Your task to perform on an android device: turn off picture-in-picture Image 0: 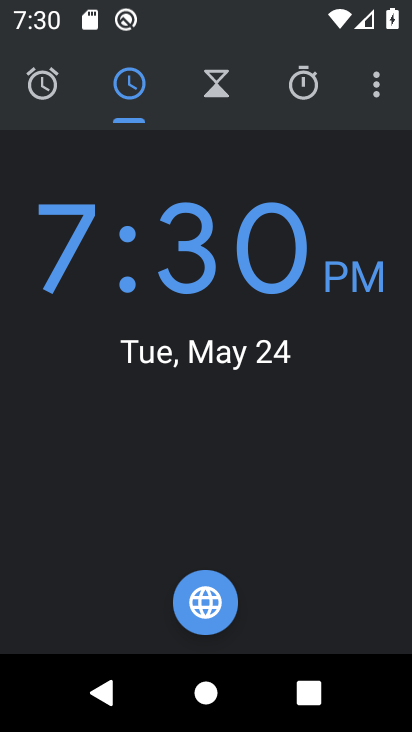
Step 0: press home button
Your task to perform on an android device: turn off picture-in-picture Image 1: 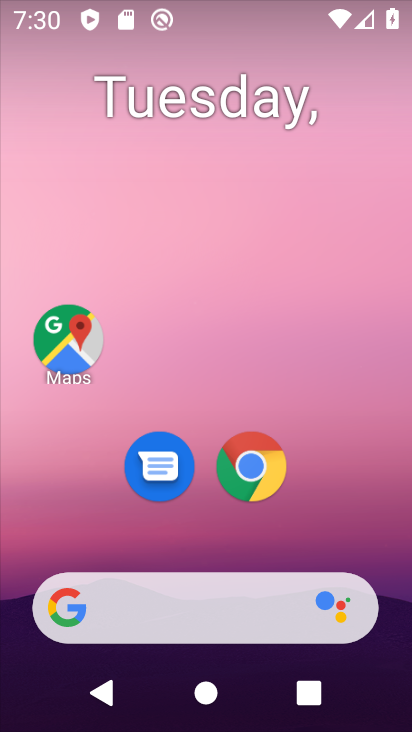
Step 1: click (351, 374)
Your task to perform on an android device: turn off picture-in-picture Image 2: 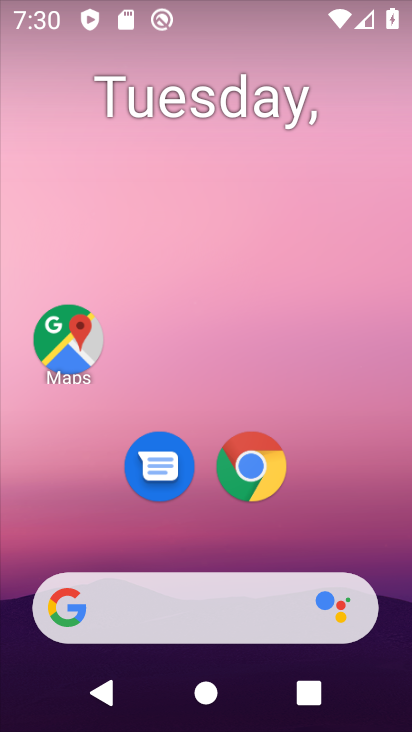
Step 2: drag from (348, 502) to (265, 82)
Your task to perform on an android device: turn off picture-in-picture Image 3: 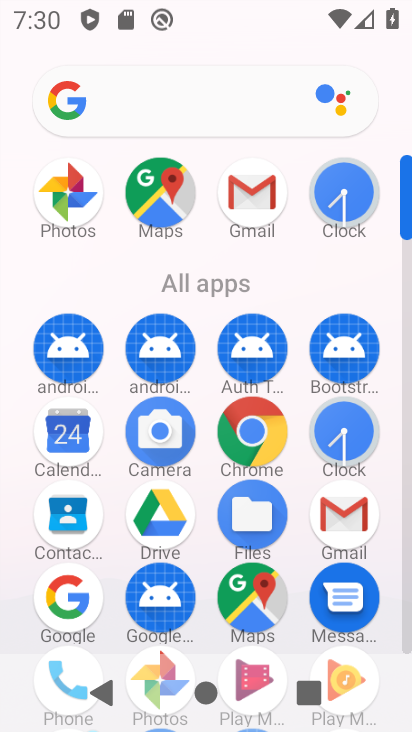
Step 3: click (405, 594)
Your task to perform on an android device: turn off picture-in-picture Image 4: 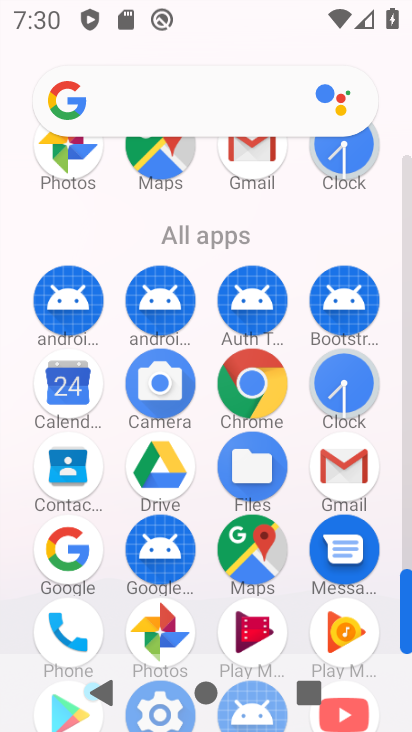
Step 4: click (409, 663)
Your task to perform on an android device: turn off picture-in-picture Image 5: 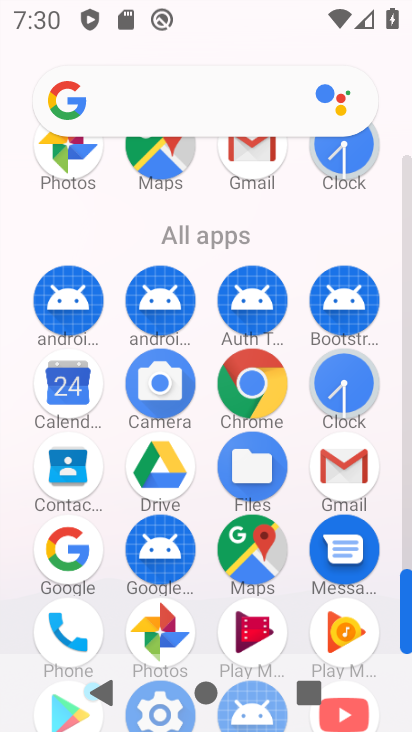
Step 5: click (409, 720)
Your task to perform on an android device: turn off picture-in-picture Image 6: 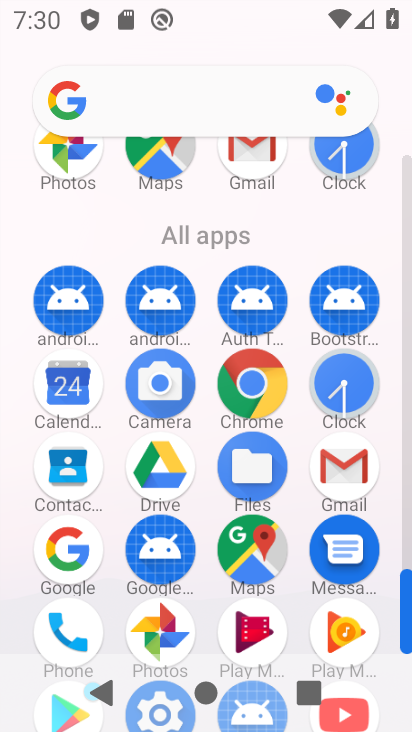
Step 6: click (406, 625)
Your task to perform on an android device: turn off picture-in-picture Image 7: 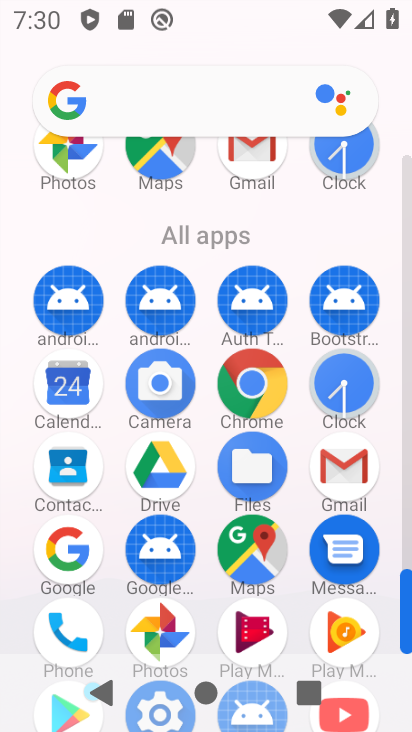
Step 7: drag from (410, 614) to (407, 723)
Your task to perform on an android device: turn off picture-in-picture Image 8: 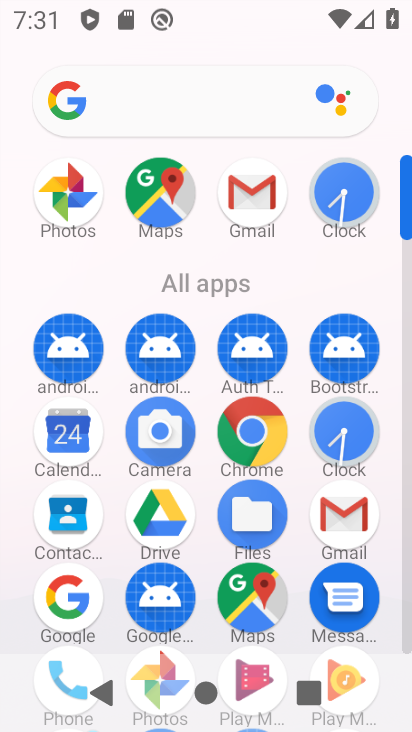
Step 8: click (407, 711)
Your task to perform on an android device: turn off picture-in-picture Image 9: 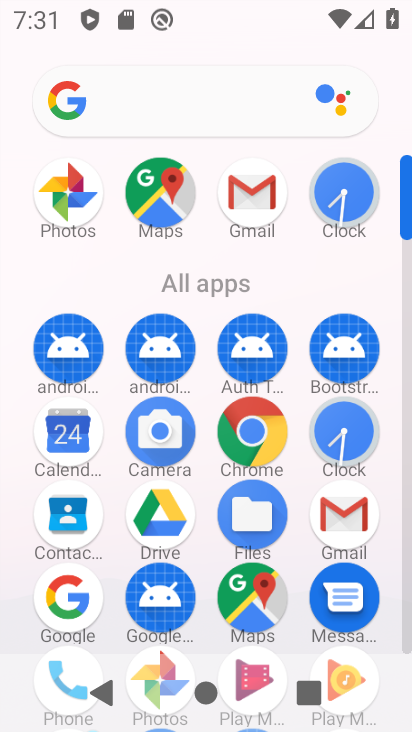
Step 9: click (407, 639)
Your task to perform on an android device: turn off picture-in-picture Image 10: 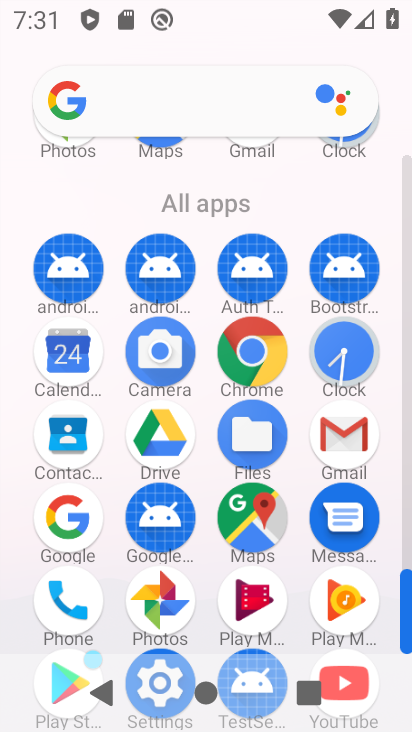
Step 10: click (161, 652)
Your task to perform on an android device: turn off picture-in-picture Image 11: 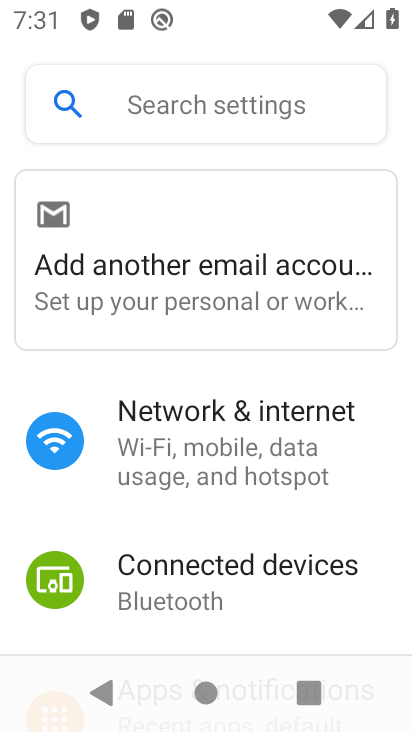
Step 11: drag from (304, 531) to (305, 244)
Your task to perform on an android device: turn off picture-in-picture Image 12: 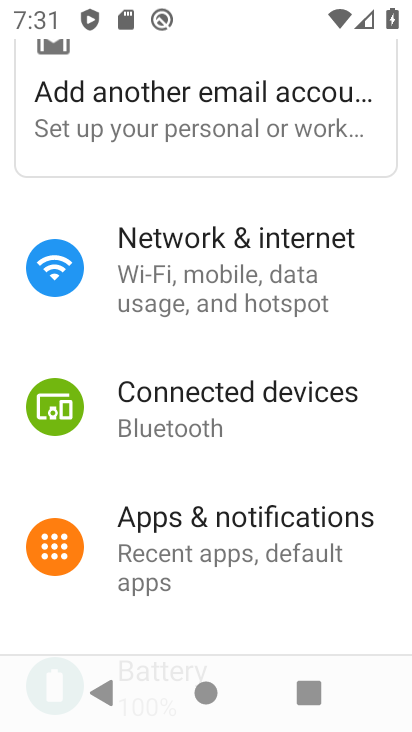
Step 12: drag from (219, 594) to (242, 401)
Your task to perform on an android device: turn off picture-in-picture Image 13: 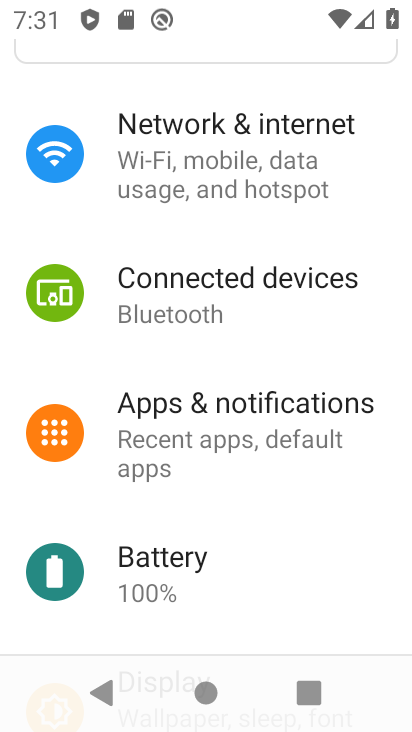
Step 13: drag from (206, 561) to (164, 278)
Your task to perform on an android device: turn off picture-in-picture Image 14: 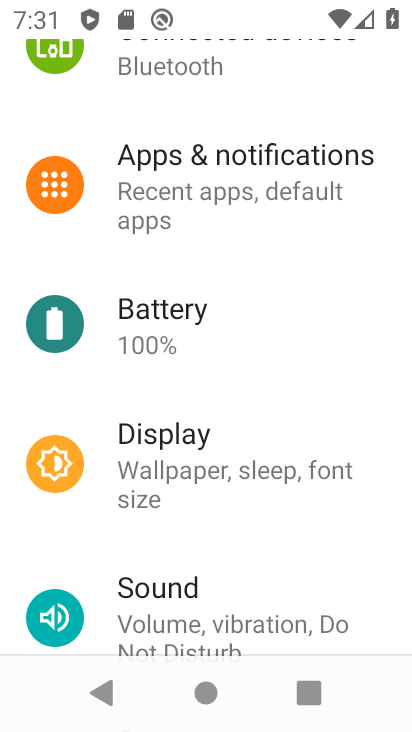
Step 14: drag from (200, 587) to (229, 291)
Your task to perform on an android device: turn off picture-in-picture Image 15: 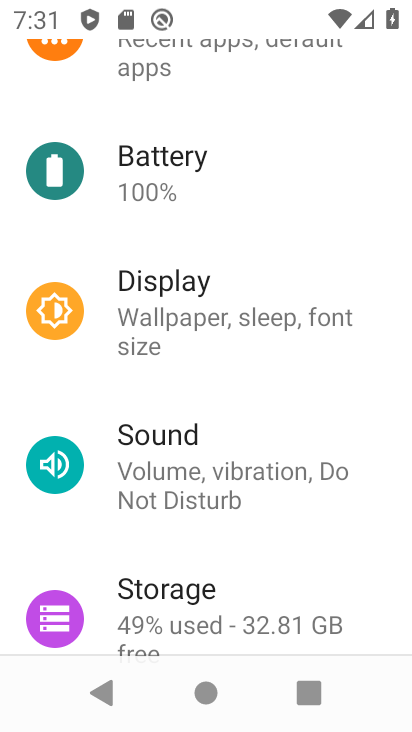
Step 15: click (158, 76)
Your task to perform on an android device: turn off picture-in-picture Image 16: 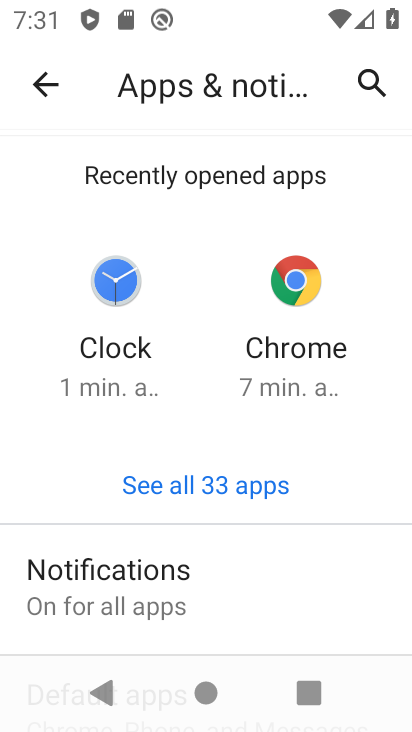
Step 16: drag from (276, 576) to (266, 368)
Your task to perform on an android device: turn off picture-in-picture Image 17: 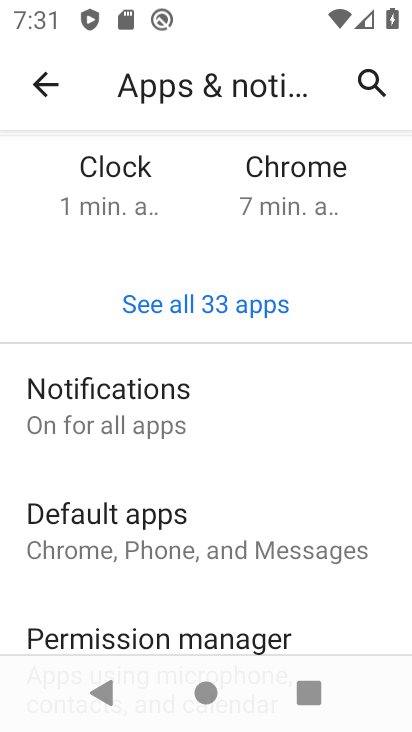
Step 17: drag from (309, 624) to (314, 420)
Your task to perform on an android device: turn off picture-in-picture Image 18: 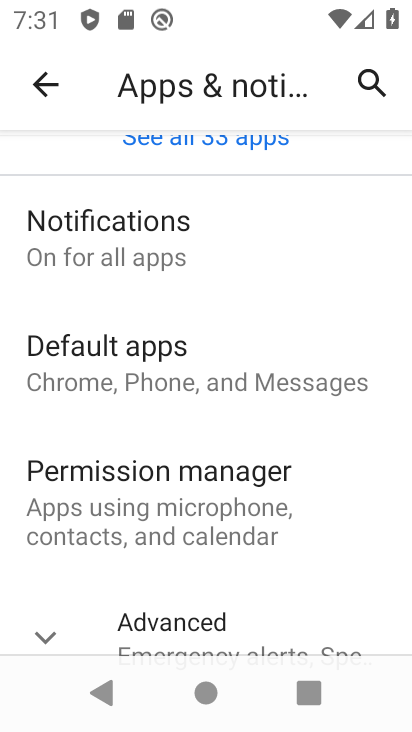
Step 18: drag from (244, 622) to (246, 400)
Your task to perform on an android device: turn off picture-in-picture Image 19: 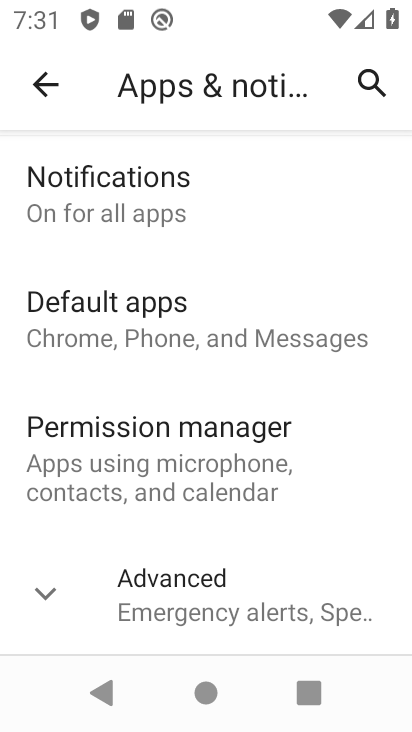
Step 19: click (261, 563)
Your task to perform on an android device: turn off picture-in-picture Image 20: 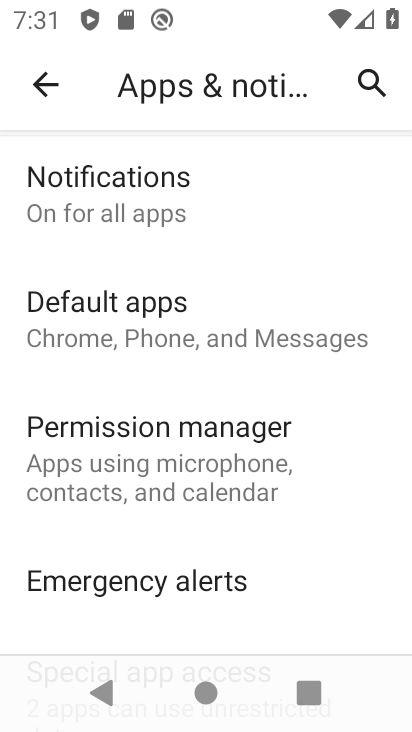
Step 20: drag from (261, 563) to (275, 277)
Your task to perform on an android device: turn off picture-in-picture Image 21: 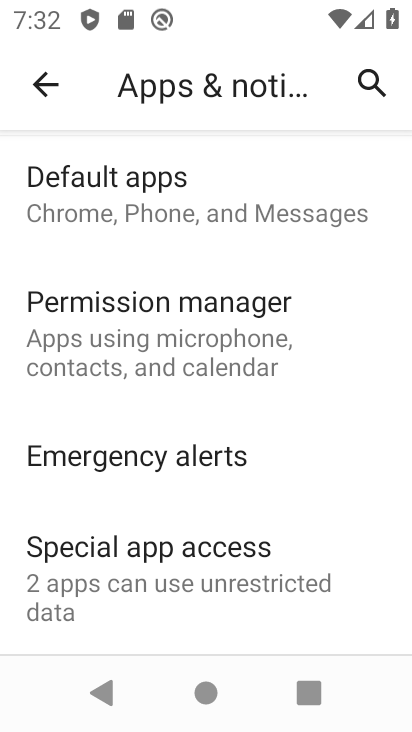
Step 21: click (201, 570)
Your task to perform on an android device: turn off picture-in-picture Image 22: 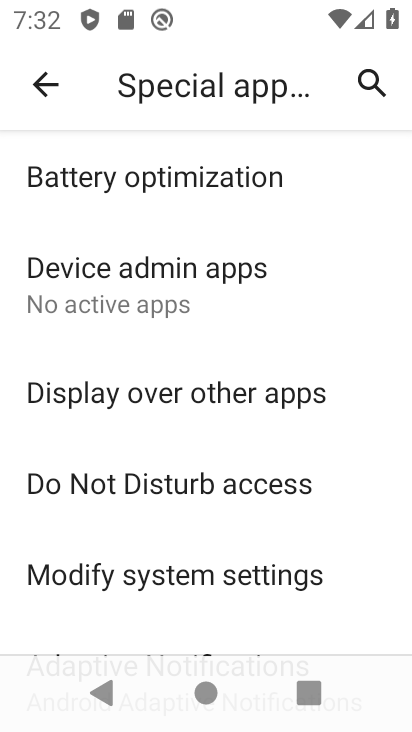
Step 22: drag from (280, 605) to (281, 296)
Your task to perform on an android device: turn off picture-in-picture Image 23: 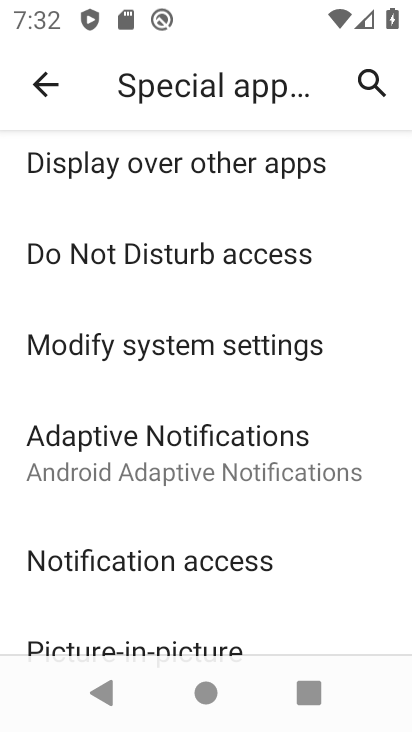
Step 23: click (185, 652)
Your task to perform on an android device: turn off picture-in-picture Image 24: 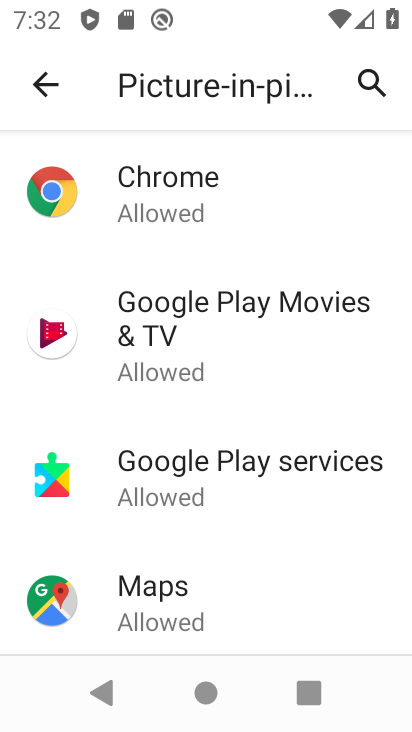
Step 24: task complete